Your task to perform on an android device: What is the recent news? Image 0: 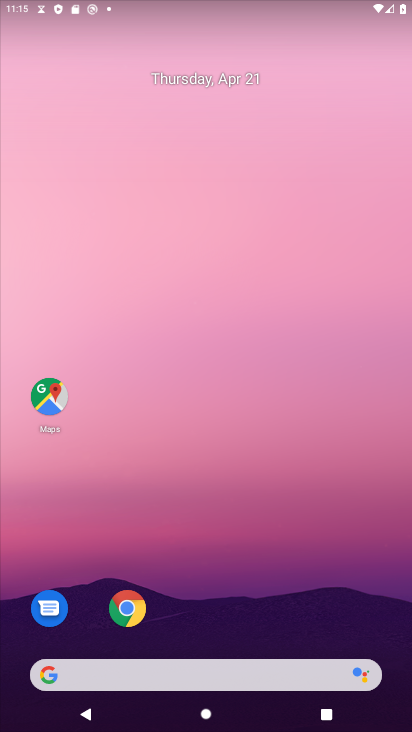
Step 0: drag from (186, 398) to (197, 134)
Your task to perform on an android device: What is the recent news? Image 1: 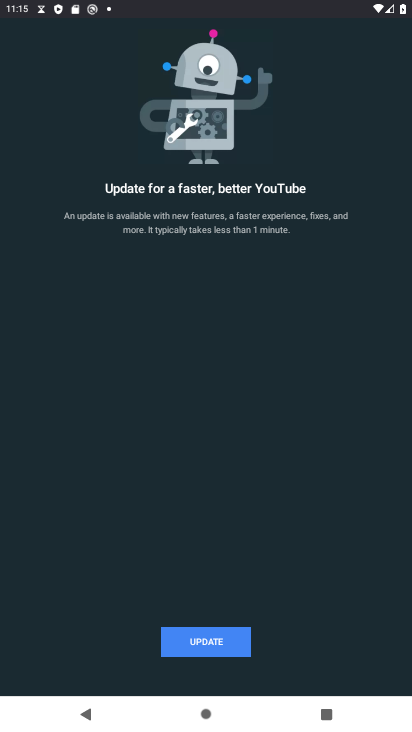
Step 1: press home button
Your task to perform on an android device: What is the recent news? Image 2: 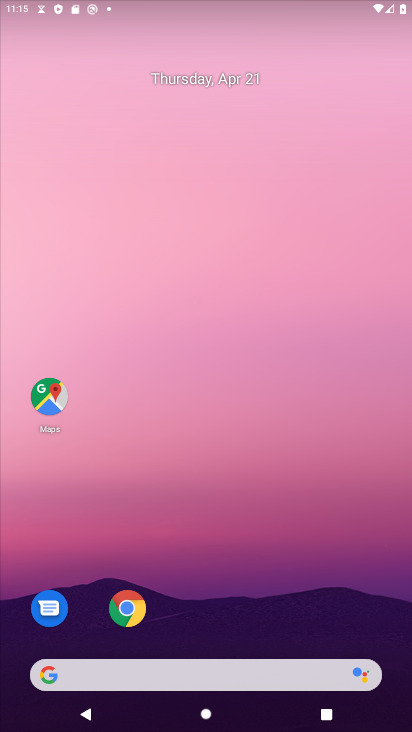
Step 2: drag from (245, 602) to (213, 176)
Your task to perform on an android device: What is the recent news? Image 3: 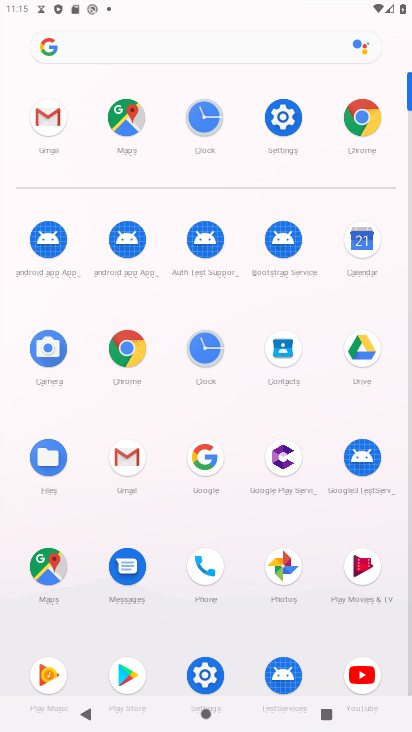
Step 3: click (359, 118)
Your task to perform on an android device: What is the recent news? Image 4: 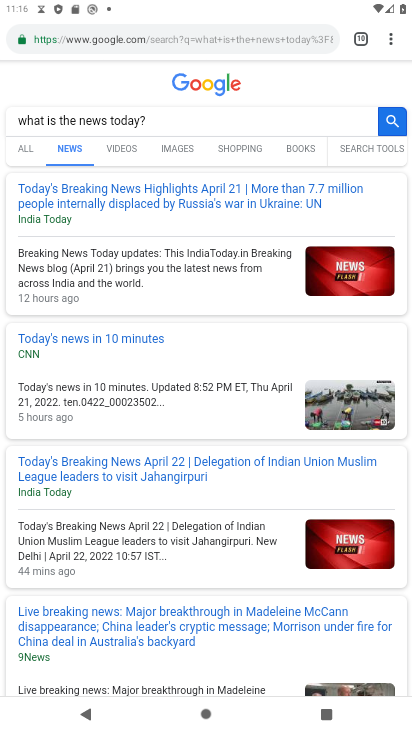
Step 4: click (358, 36)
Your task to perform on an android device: What is the recent news? Image 5: 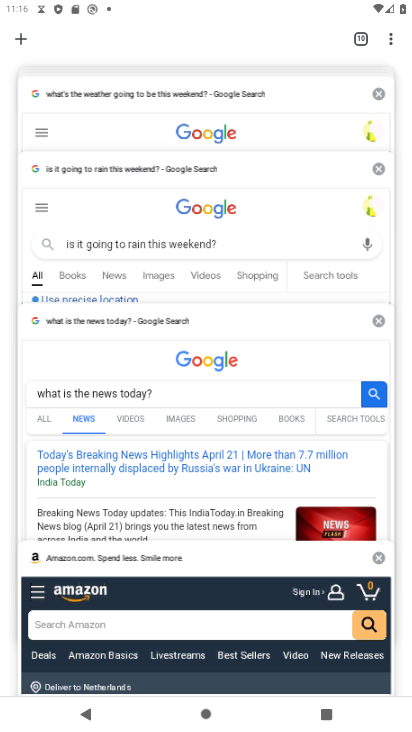
Step 5: drag from (122, 90) to (145, 519)
Your task to perform on an android device: What is the recent news? Image 6: 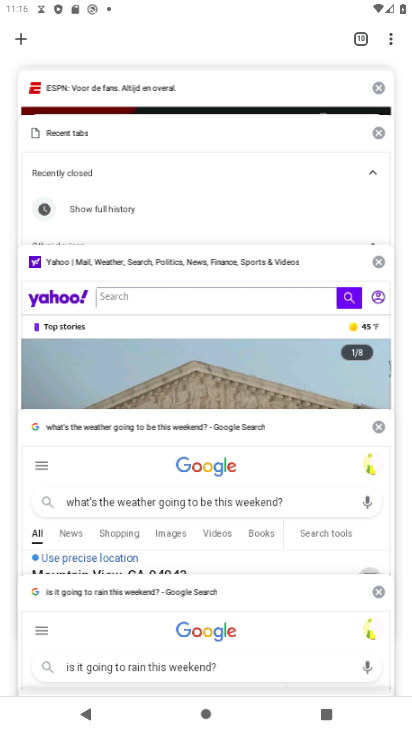
Step 6: drag from (121, 95) to (99, 458)
Your task to perform on an android device: What is the recent news? Image 7: 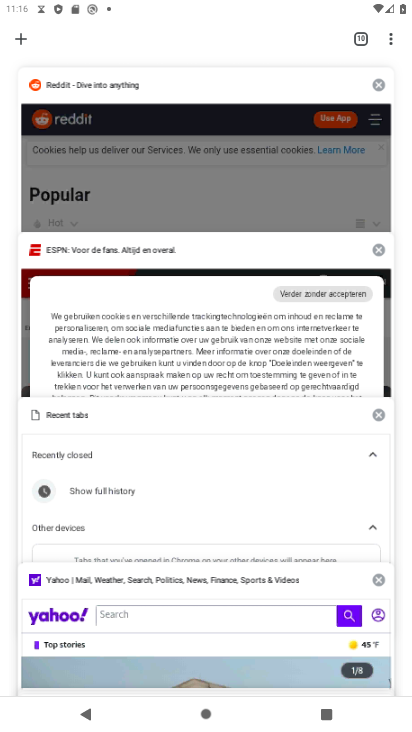
Step 7: click (22, 36)
Your task to perform on an android device: What is the recent news? Image 8: 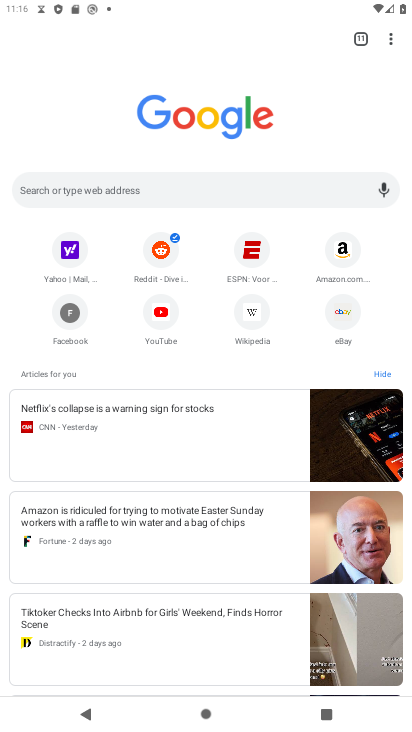
Step 8: click (116, 189)
Your task to perform on an android device: What is the recent news? Image 9: 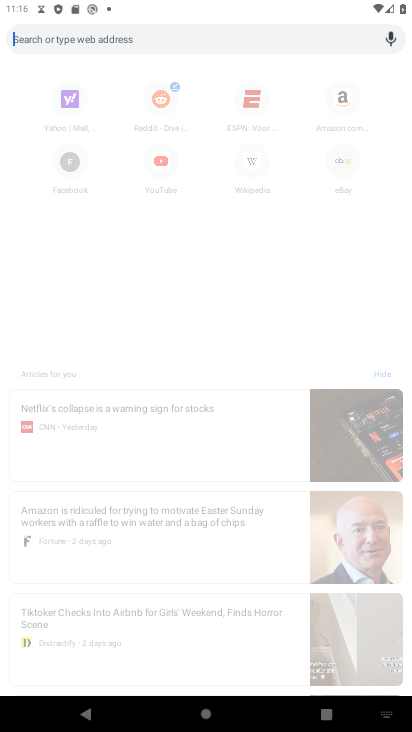
Step 9: type "whats is the recent news"
Your task to perform on an android device: What is the recent news? Image 10: 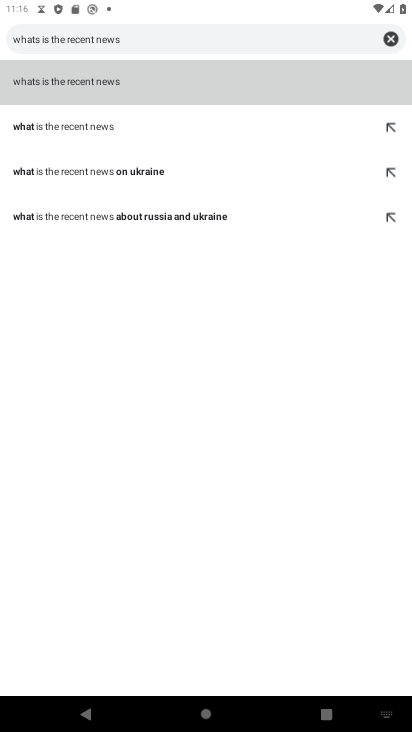
Step 10: click (81, 79)
Your task to perform on an android device: What is the recent news? Image 11: 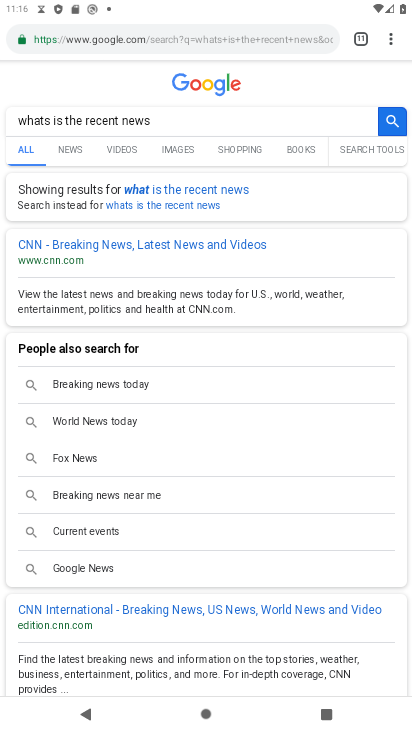
Step 11: click (72, 149)
Your task to perform on an android device: What is the recent news? Image 12: 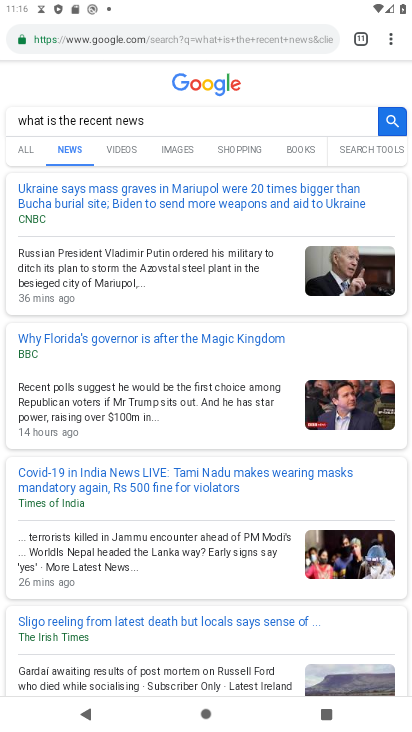
Step 12: task complete